Your task to perform on an android device: turn off sleep mode Image 0: 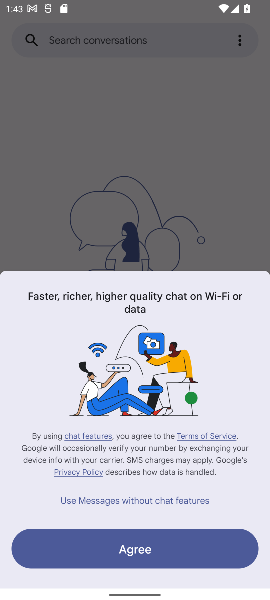
Step 0: task complete